Your task to perform on an android device: toggle priority inbox in the gmail app Image 0: 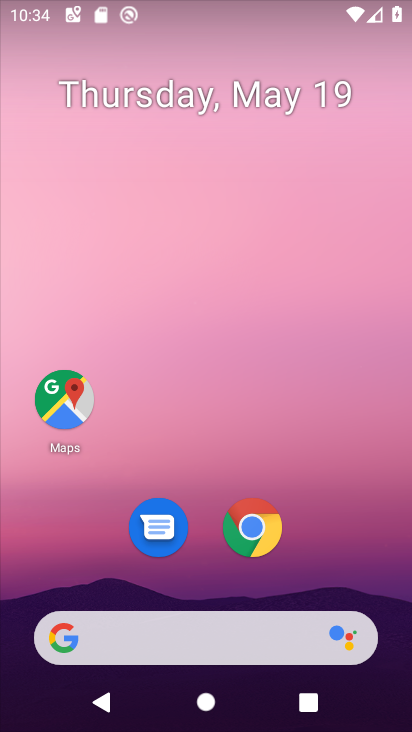
Step 0: drag from (386, 496) to (349, 219)
Your task to perform on an android device: toggle priority inbox in the gmail app Image 1: 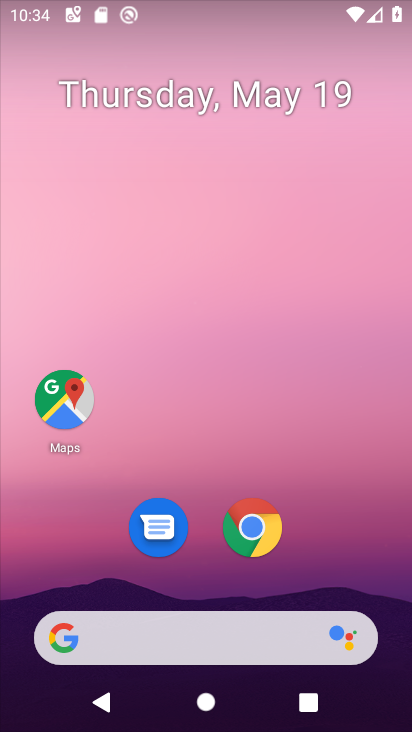
Step 1: drag from (366, 553) to (286, 232)
Your task to perform on an android device: toggle priority inbox in the gmail app Image 2: 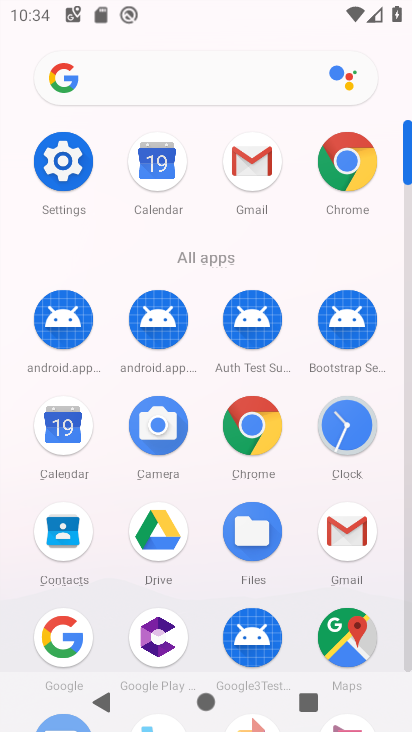
Step 2: click (257, 172)
Your task to perform on an android device: toggle priority inbox in the gmail app Image 3: 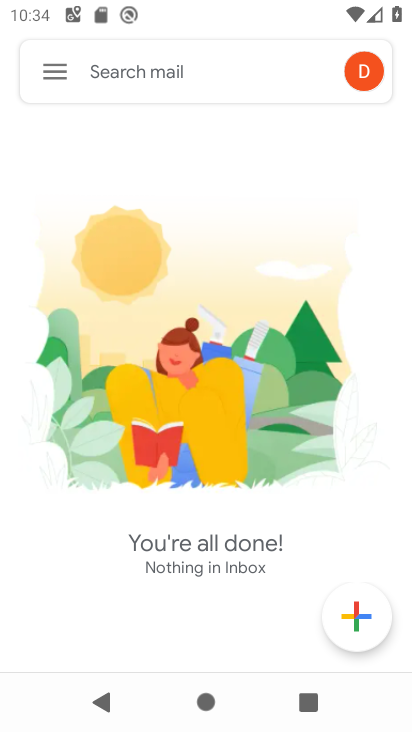
Step 3: click (49, 69)
Your task to perform on an android device: toggle priority inbox in the gmail app Image 4: 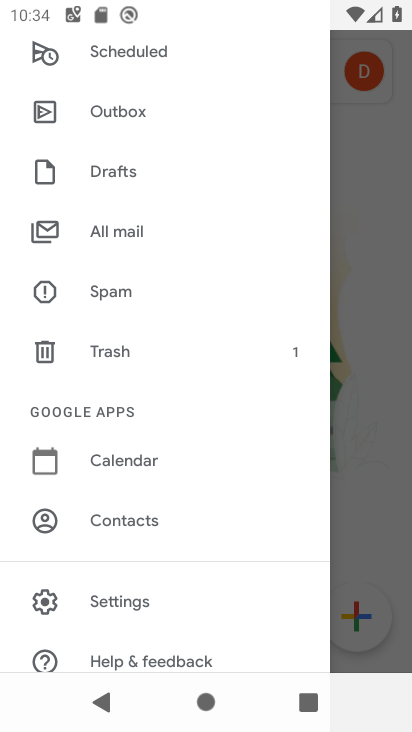
Step 4: click (134, 603)
Your task to perform on an android device: toggle priority inbox in the gmail app Image 5: 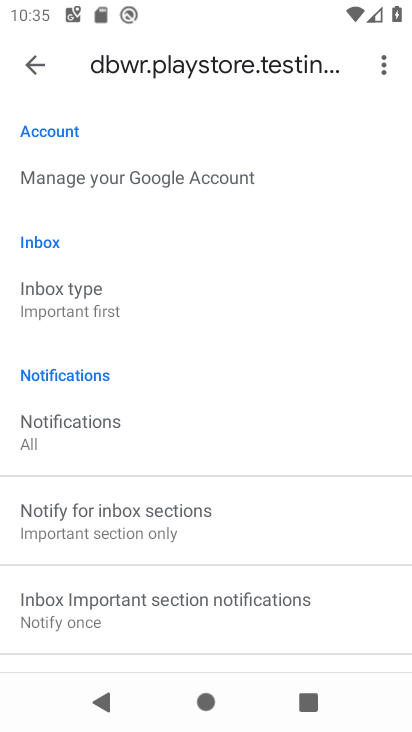
Step 5: click (166, 311)
Your task to perform on an android device: toggle priority inbox in the gmail app Image 6: 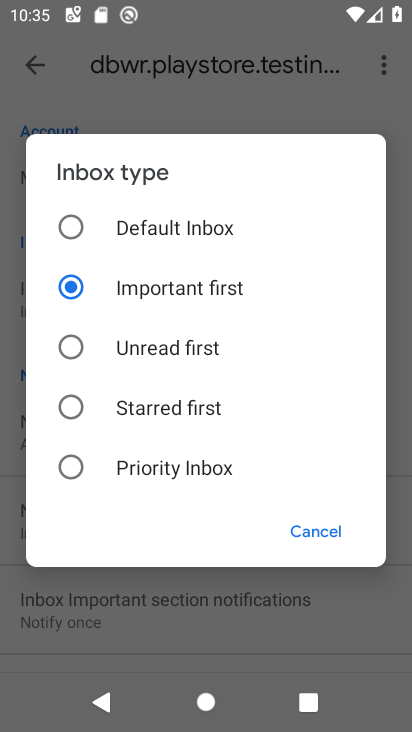
Step 6: click (182, 464)
Your task to perform on an android device: toggle priority inbox in the gmail app Image 7: 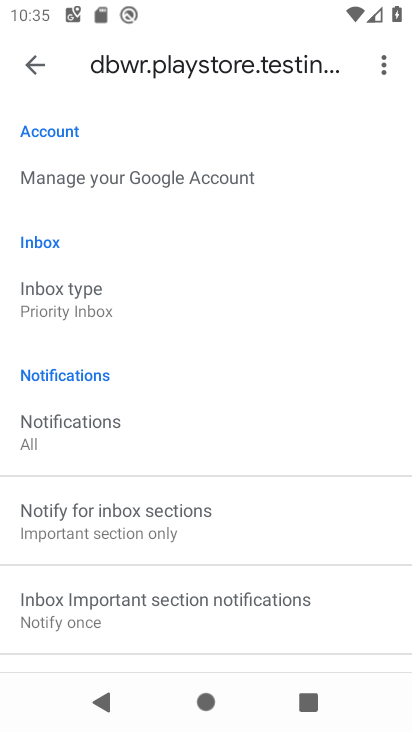
Step 7: task complete